Your task to perform on an android device: Open Google Maps and go to "Timeline" Image 0: 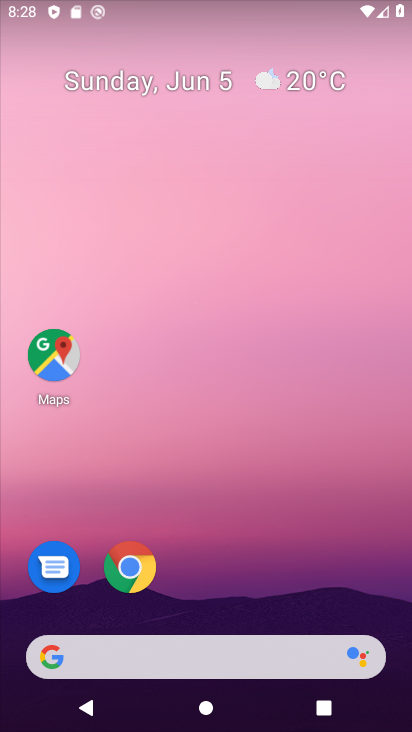
Step 0: drag from (287, 523) to (199, 77)
Your task to perform on an android device: Open Google Maps and go to "Timeline" Image 1: 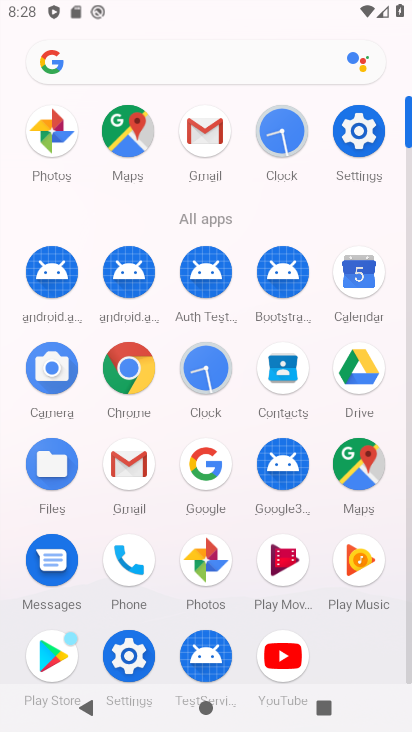
Step 1: click (359, 466)
Your task to perform on an android device: Open Google Maps and go to "Timeline" Image 2: 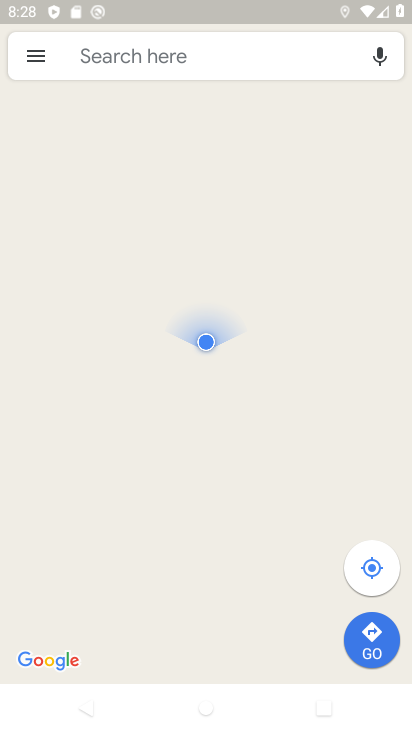
Step 2: click (36, 59)
Your task to perform on an android device: Open Google Maps and go to "Timeline" Image 3: 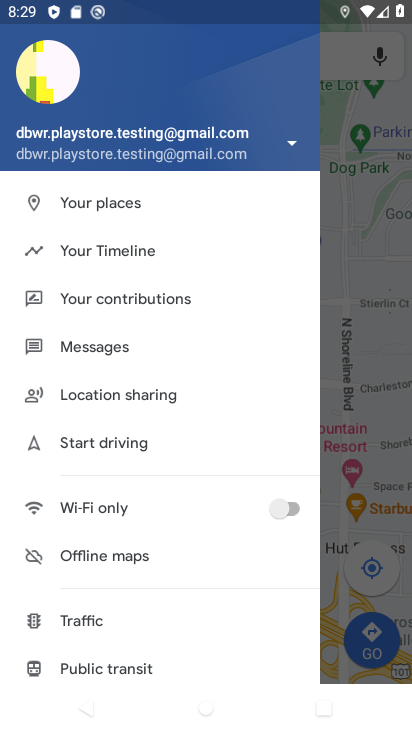
Step 3: click (104, 252)
Your task to perform on an android device: Open Google Maps and go to "Timeline" Image 4: 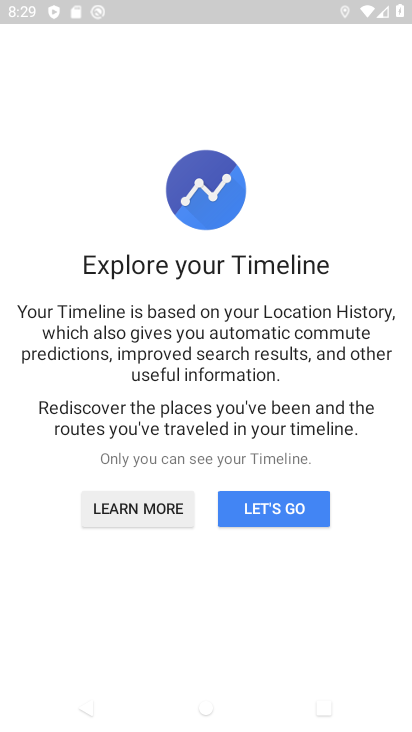
Step 4: click (262, 502)
Your task to perform on an android device: Open Google Maps and go to "Timeline" Image 5: 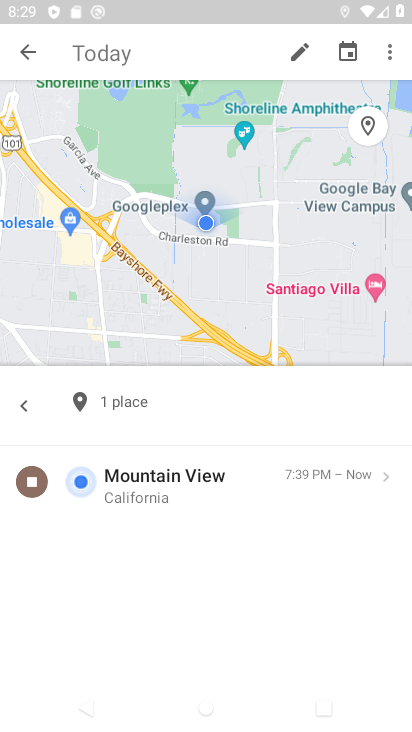
Step 5: task complete